Your task to perform on an android device: Search for pizza restaurants on Maps Image 0: 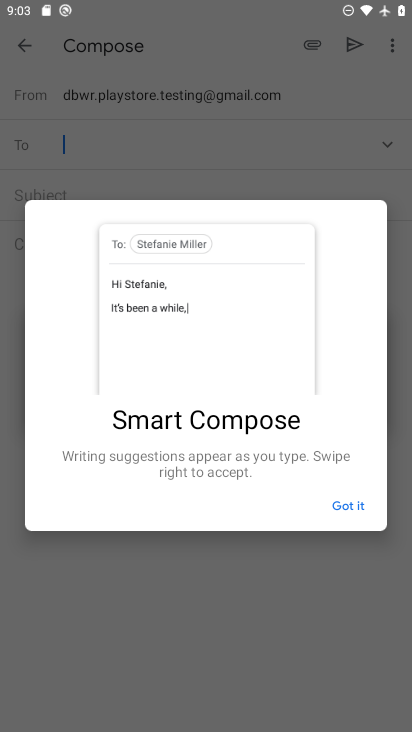
Step 0: press home button
Your task to perform on an android device: Search for pizza restaurants on Maps Image 1: 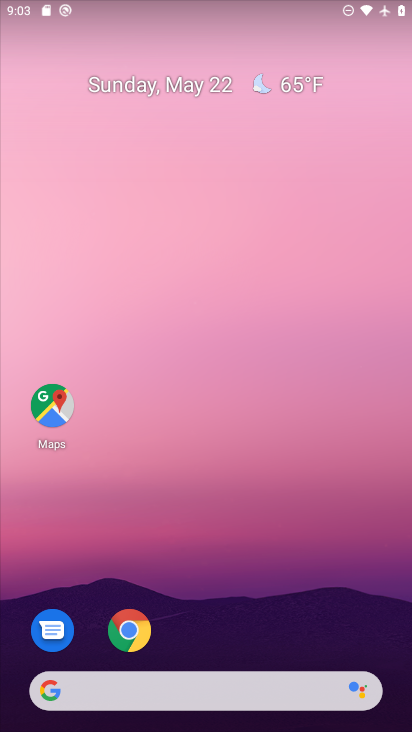
Step 1: click (56, 405)
Your task to perform on an android device: Search for pizza restaurants on Maps Image 2: 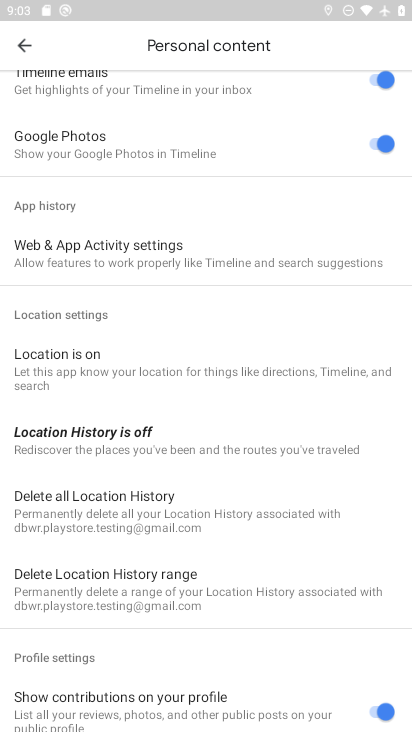
Step 2: click (23, 40)
Your task to perform on an android device: Search for pizza restaurants on Maps Image 3: 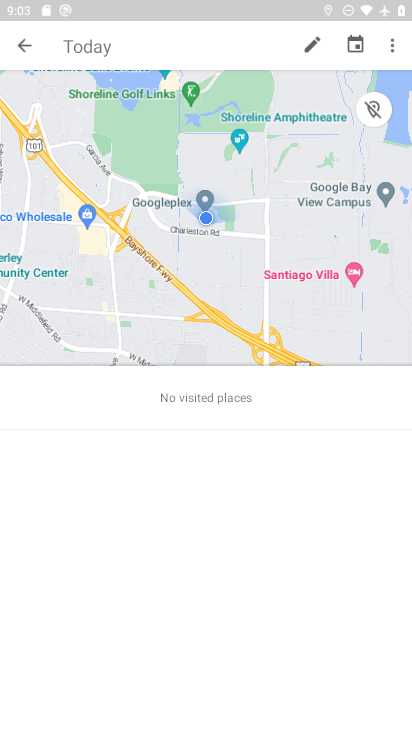
Step 3: click (23, 39)
Your task to perform on an android device: Search for pizza restaurants on Maps Image 4: 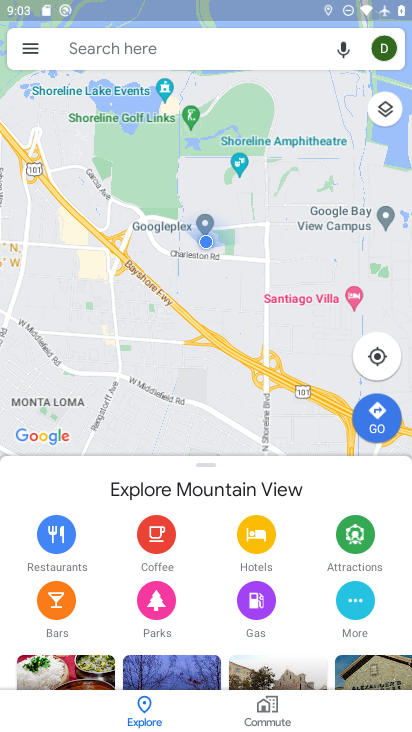
Step 4: click (143, 52)
Your task to perform on an android device: Search for pizza restaurants on Maps Image 5: 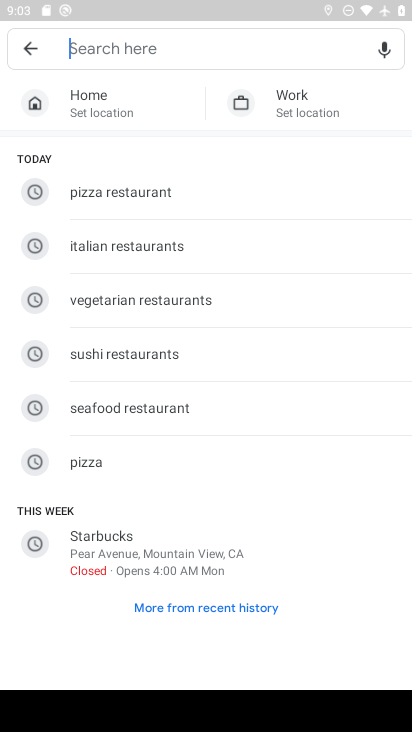
Step 5: click (115, 467)
Your task to perform on an android device: Search for pizza restaurants on Maps Image 6: 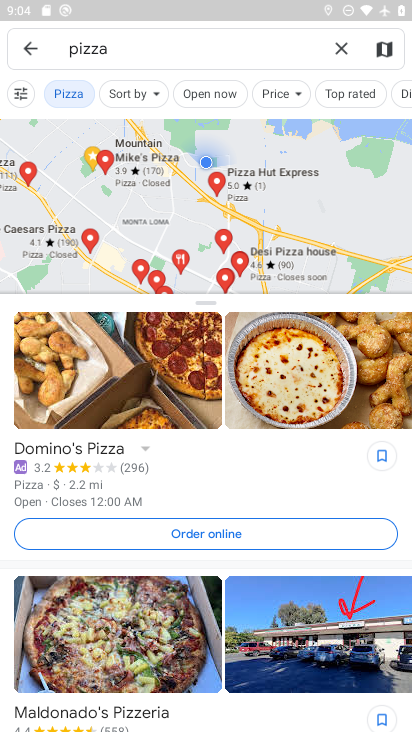
Step 6: task complete